Your task to perform on an android device: Open Google Chrome and click the shortcut for Amazon.com Image 0: 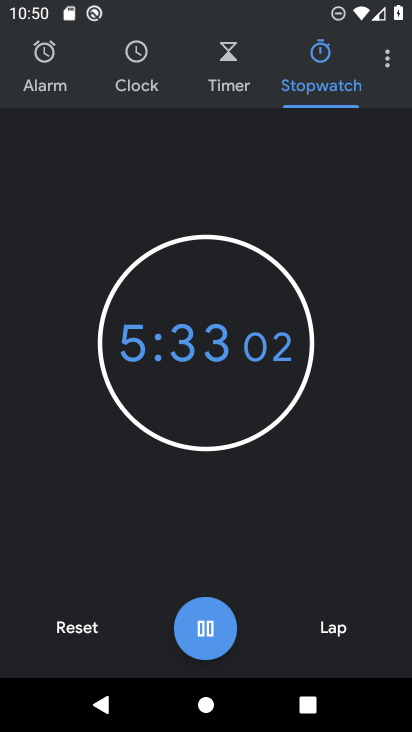
Step 0: press home button
Your task to perform on an android device: Open Google Chrome and click the shortcut for Amazon.com Image 1: 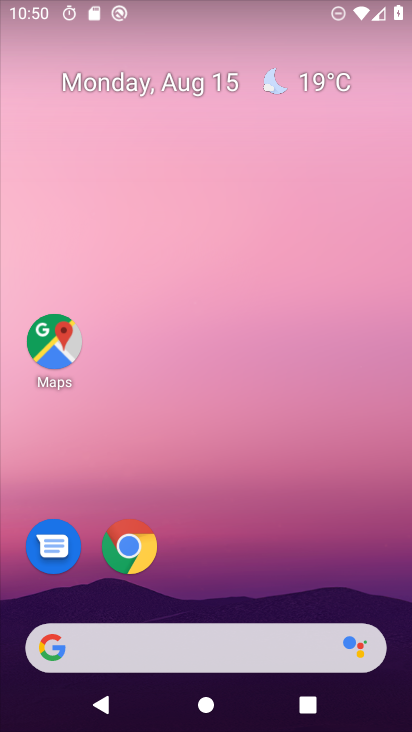
Step 1: drag from (223, 606) to (150, 78)
Your task to perform on an android device: Open Google Chrome and click the shortcut for Amazon.com Image 2: 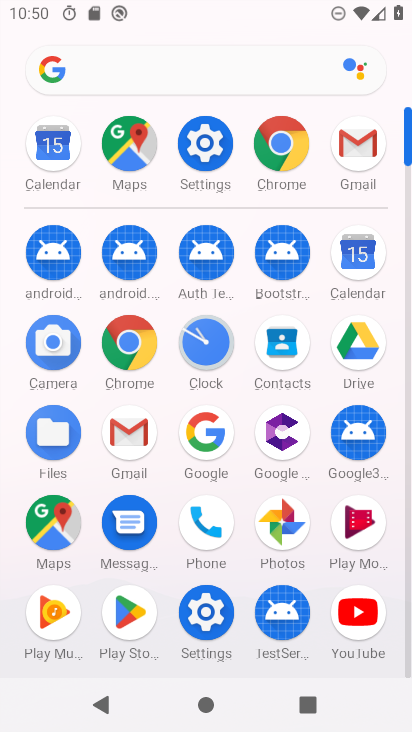
Step 2: click (277, 149)
Your task to perform on an android device: Open Google Chrome and click the shortcut for Amazon.com Image 3: 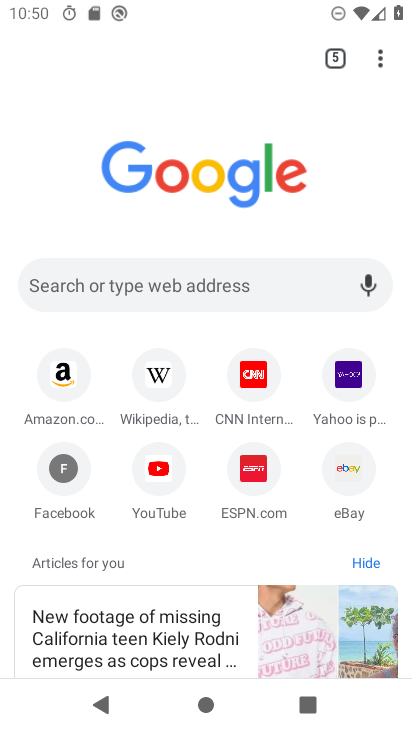
Step 3: click (57, 375)
Your task to perform on an android device: Open Google Chrome and click the shortcut for Amazon.com Image 4: 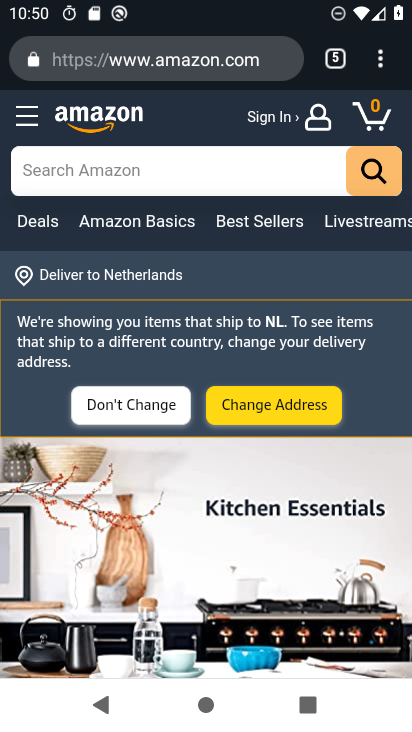
Step 4: task complete